Your task to perform on an android device: Is it going to rain tomorrow? Image 0: 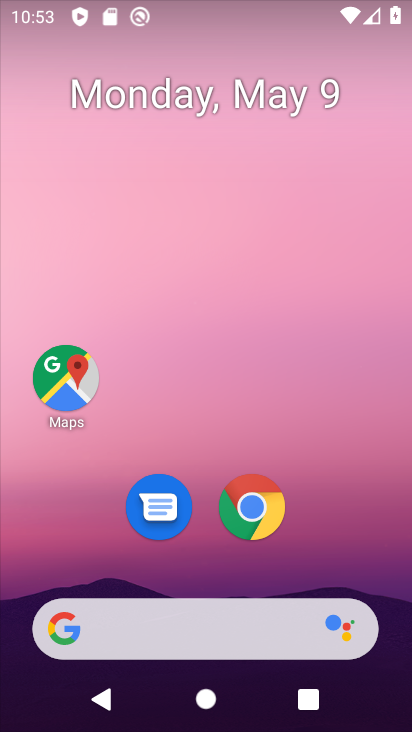
Step 0: click (180, 631)
Your task to perform on an android device: Is it going to rain tomorrow? Image 1: 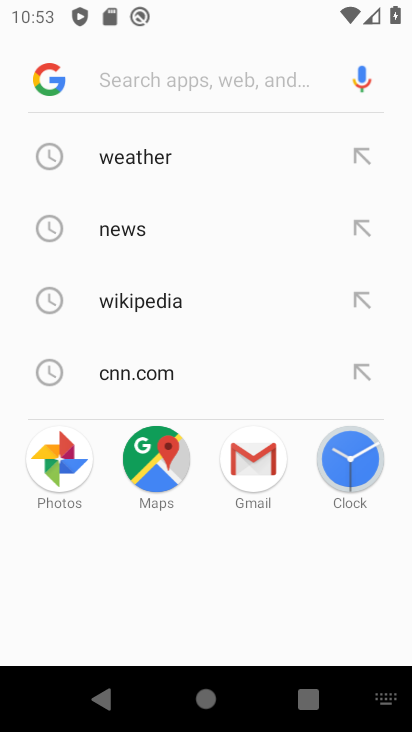
Step 1: click (150, 154)
Your task to perform on an android device: Is it going to rain tomorrow? Image 2: 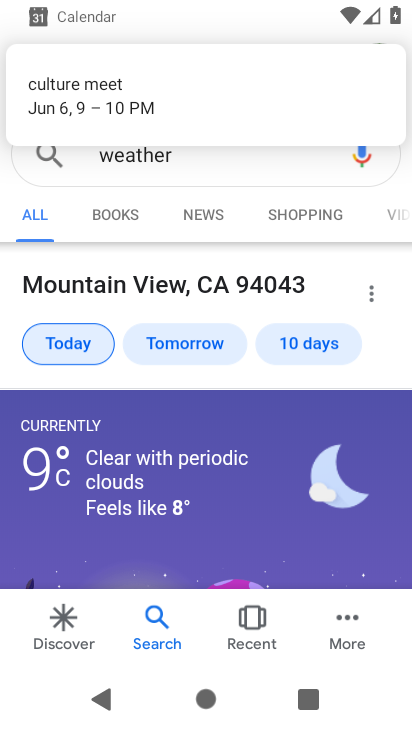
Step 2: click (185, 350)
Your task to perform on an android device: Is it going to rain tomorrow? Image 3: 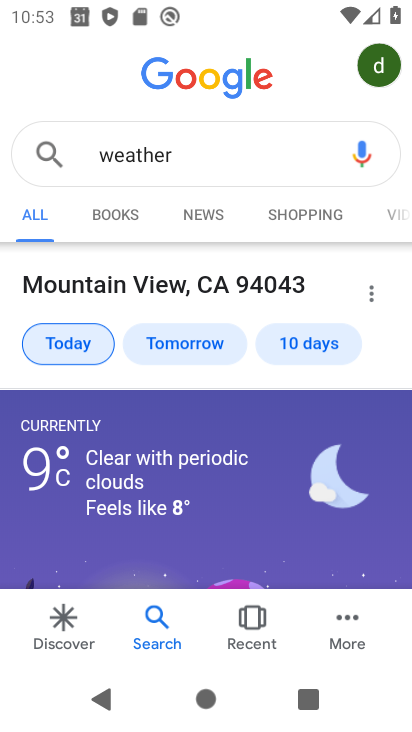
Step 3: click (208, 351)
Your task to perform on an android device: Is it going to rain tomorrow? Image 4: 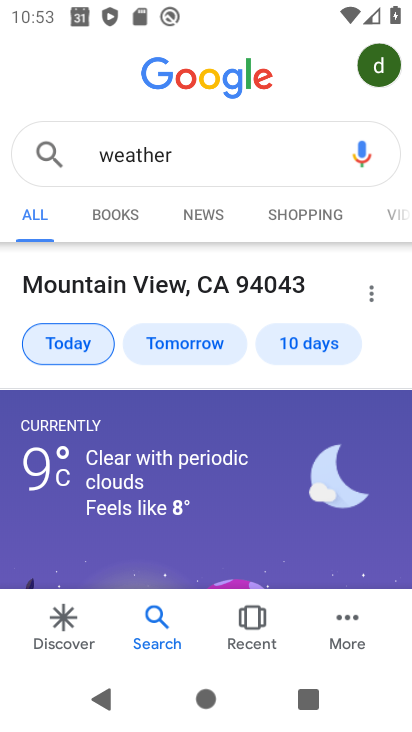
Step 4: click (185, 342)
Your task to perform on an android device: Is it going to rain tomorrow? Image 5: 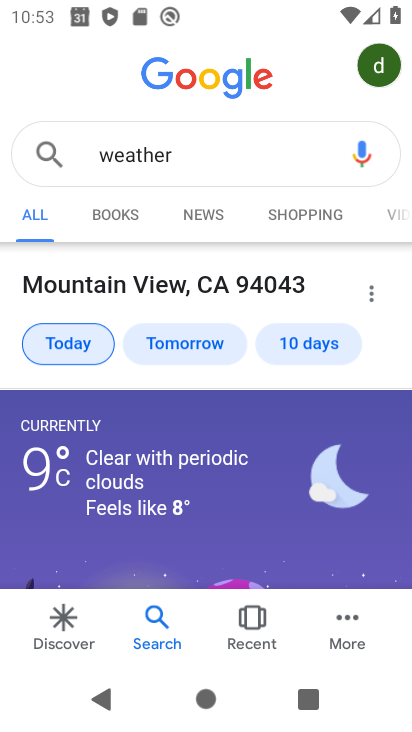
Step 5: click (200, 340)
Your task to perform on an android device: Is it going to rain tomorrow? Image 6: 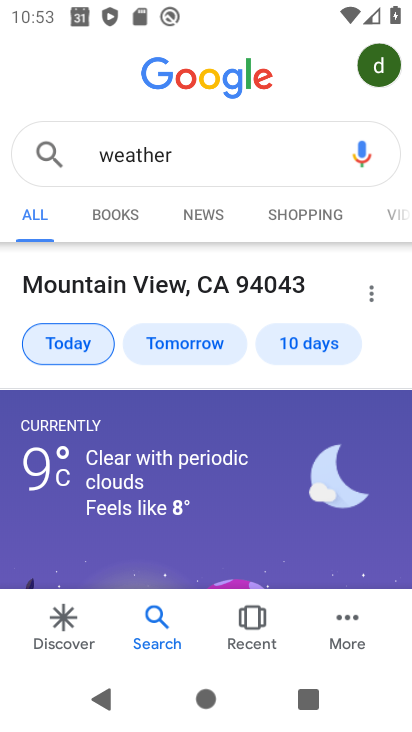
Step 6: task complete